Your task to perform on an android device: Show me recent news Image 0: 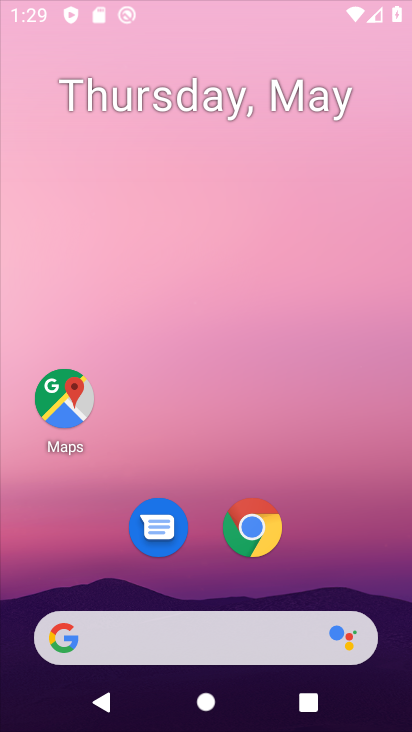
Step 0: click (268, 185)
Your task to perform on an android device: Show me recent news Image 1: 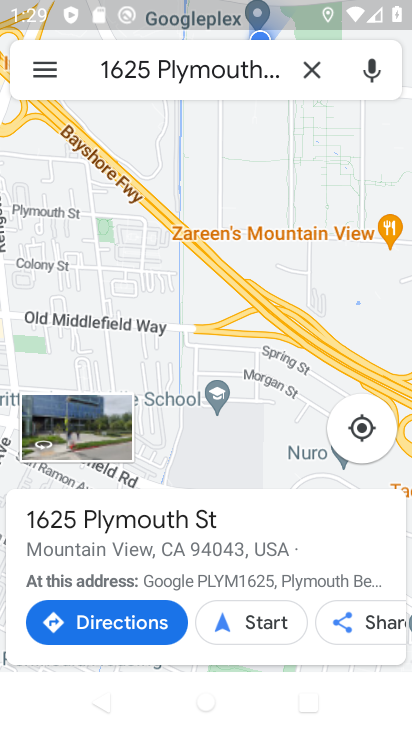
Step 1: drag from (228, 545) to (284, 236)
Your task to perform on an android device: Show me recent news Image 2: 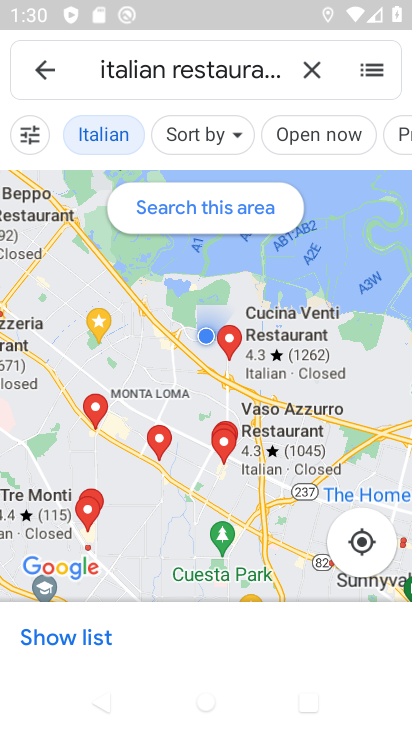
Step 2: press home button
Your task to perform on an android device: Show me recent news Image 3: 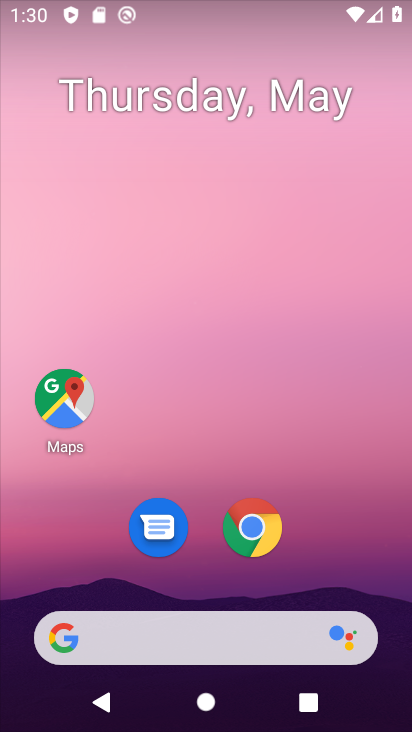
Step 3: drag from (200, 588) to (74, 23)
Your task to perform on an android device: Show me recent news Image 4: 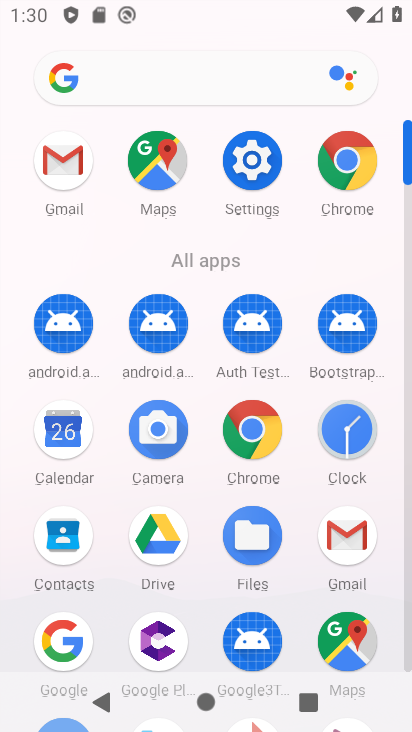
Step 4: click (198, 85)
Your task to perform on an android device: Show me recent news Image 5: 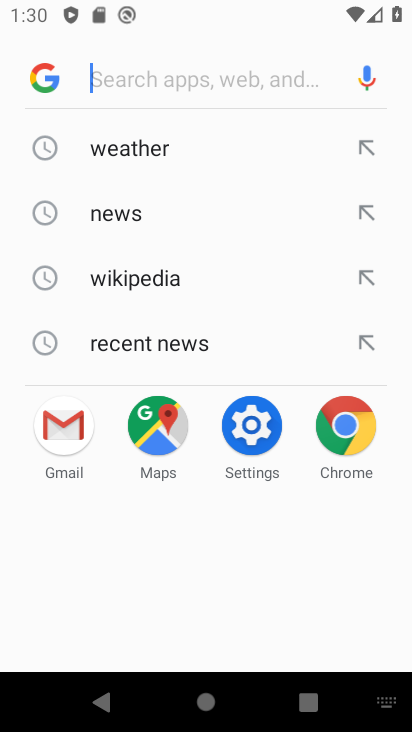
Step 5: click (166, 335)
Your task to perform on an android device: Show me recent news Image 6: 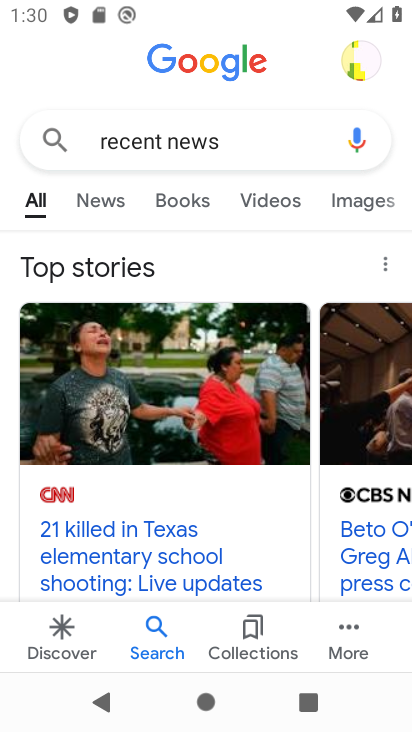
Step 6: task complete